Your task to perform on an android device: Open calendar and show me the third week of next month Image 0: 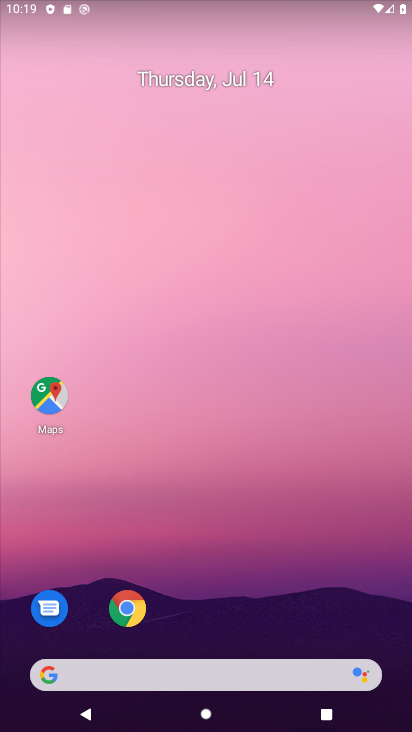
Step 0: drag from (230, 612) to (243, 10)
Your task to perform on an android device: Open calendar and show me the third week of next month Image 1: 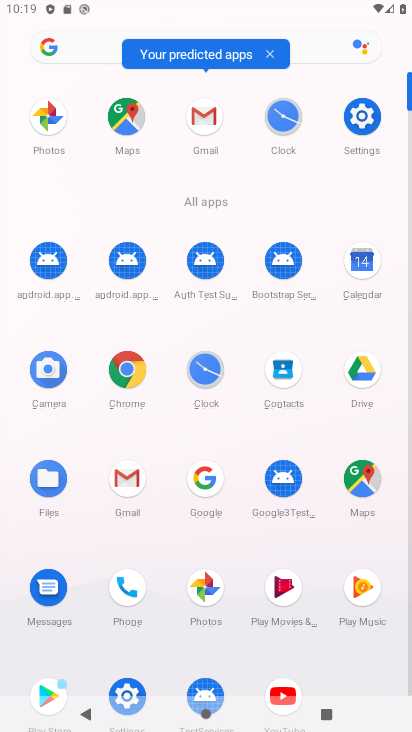
Step 1: click (366, 261)
Your task to perform on an android device: Open calendar and show me the third week of next month Image 2: 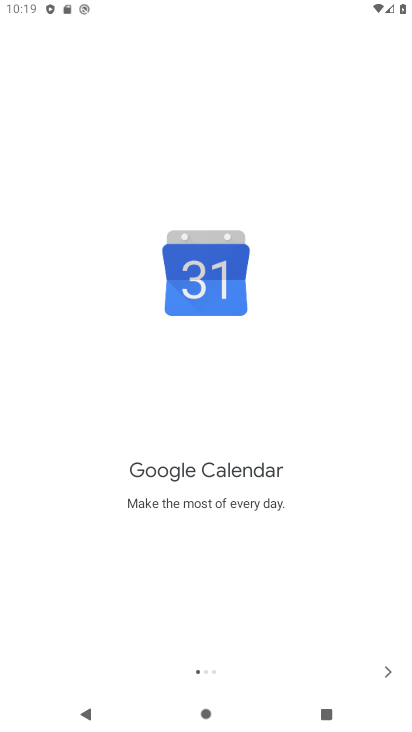
Step 2: click (393, 676)
Your task to perform on an android device: Open calendar and show me the third week of next month Image 3: 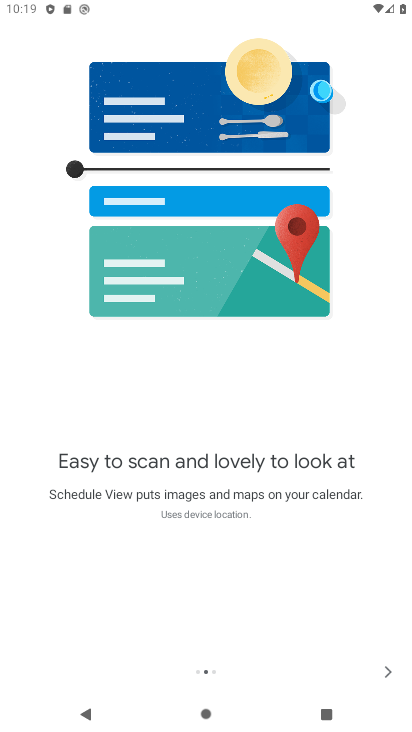
Step 3: click (393, 676)
Your task to perform on an android device: Open calendar and show me the third week of next month Image 4: 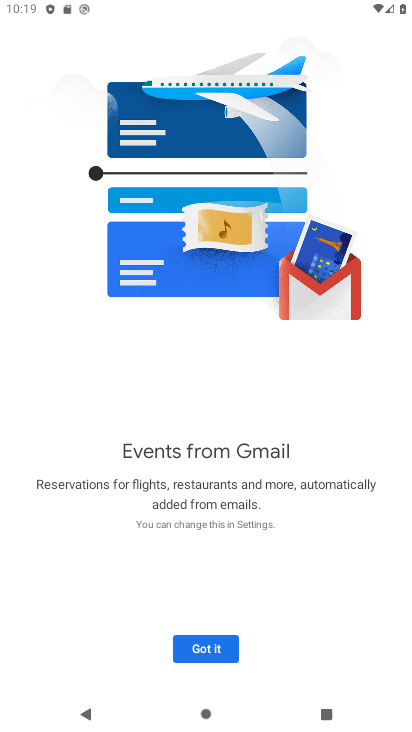
Step 4: click (196, 643)
Your task to perform on an android device: Open calendar and show me the third week of next month Image 5: 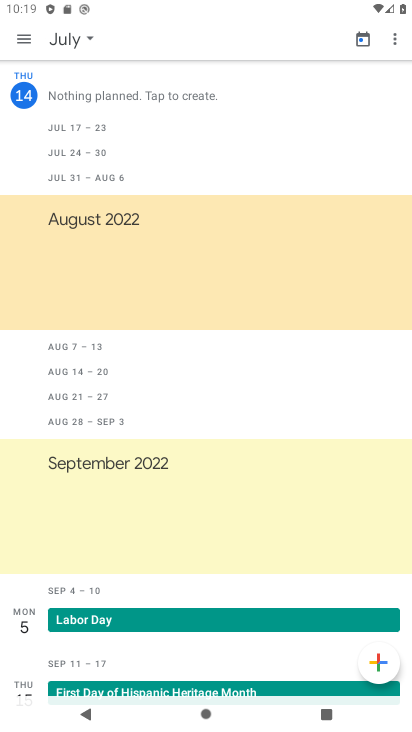
Step 5: click (30, 35)
Your task to perform on an android device: Open calendar and show me the third week of next month Image 6: 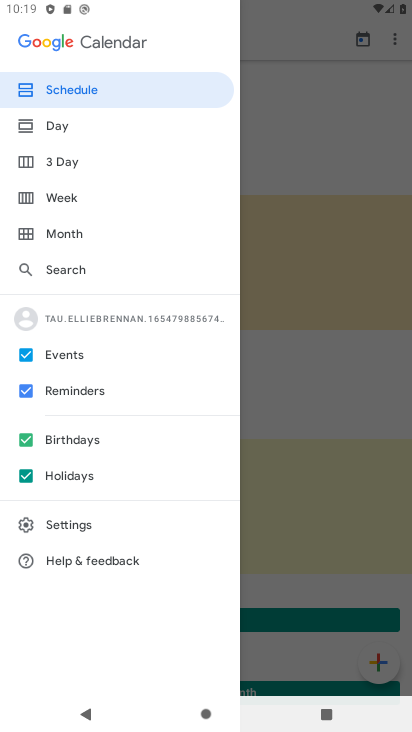
Step 6: click (72, 193)
Your task to perform on an android device: Open calendar and show me the third week of next month Image 7: 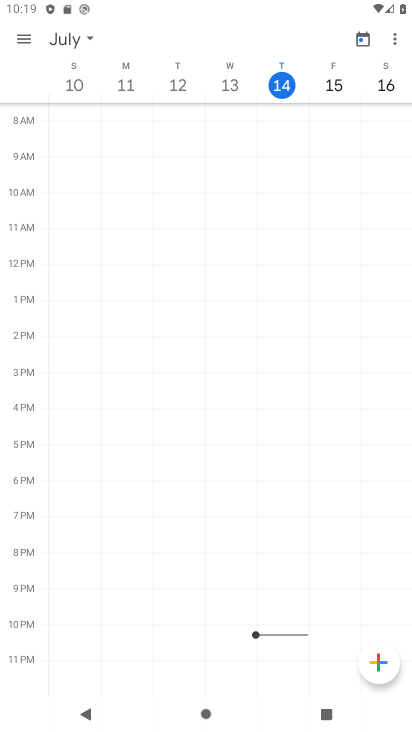
Step 7: click (89, 31)
Your task to perform on an android device: Open calendar and show me the third week of next month Image 8: 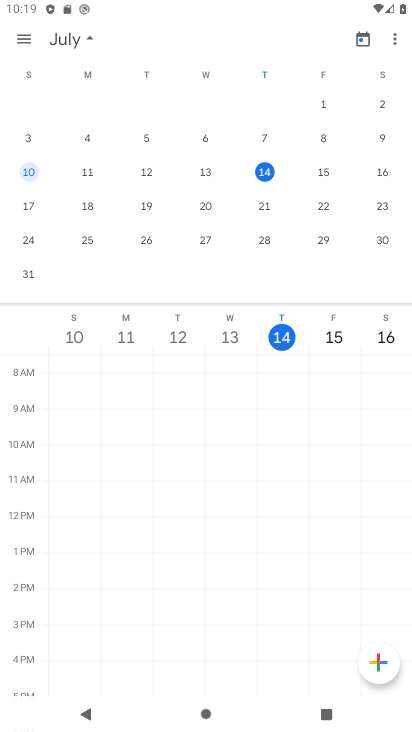
Step 8: drag from (348, 224) to (23, 172)
Your task to perform on an android device: Open calendar and show me the third week of next month Image 9: 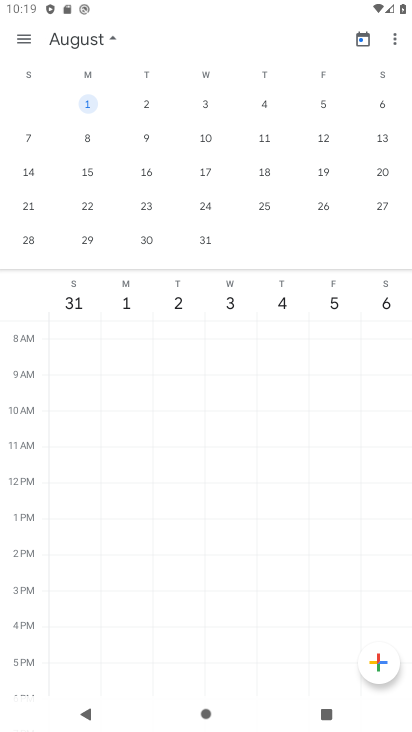
Step 9: click (145, 172)
Your task to perform on an android device: Open calendar and show me the third week of next month Image 10: 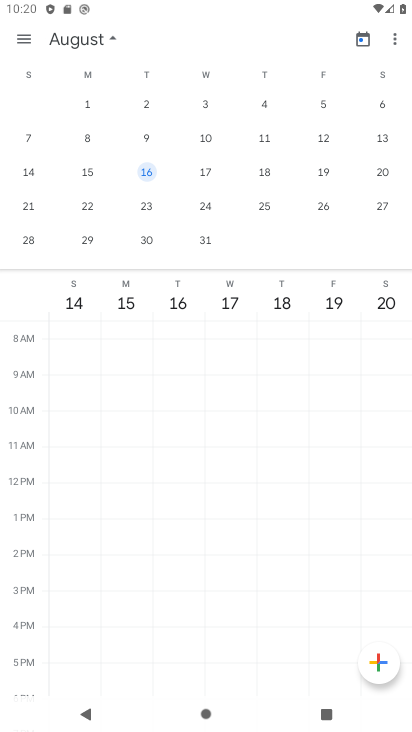
Step 10: drag from (290, 600) to (217, 123)
Your task to perform on an android device: Open calendar and show me the third week of next month Image 11: 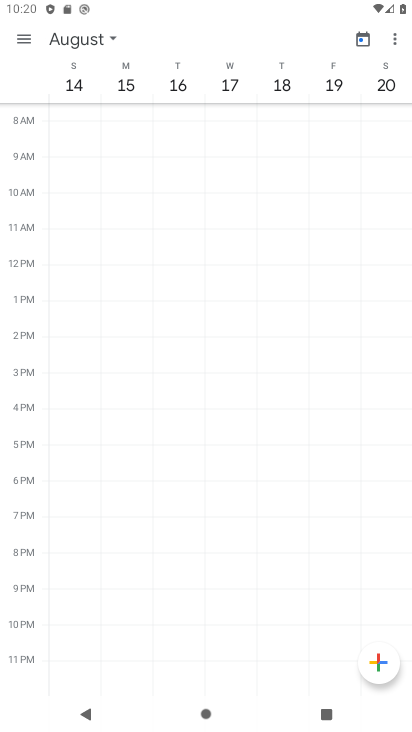
Step 11: drag from (259, 625) to (253, 690)
Your task to perform on an android device: Open calendar and show me the third week of next month Image 12: 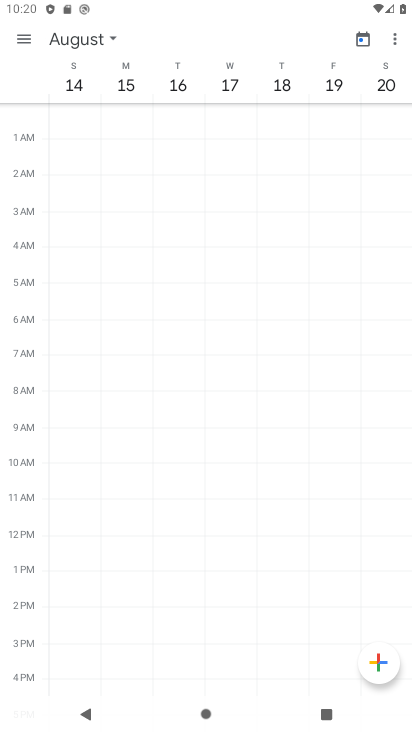
Step 12: drag from (276, 547) to (229, 439)
Your task to perform on an android device: Open calendar and show me the third week of next month Image 13: 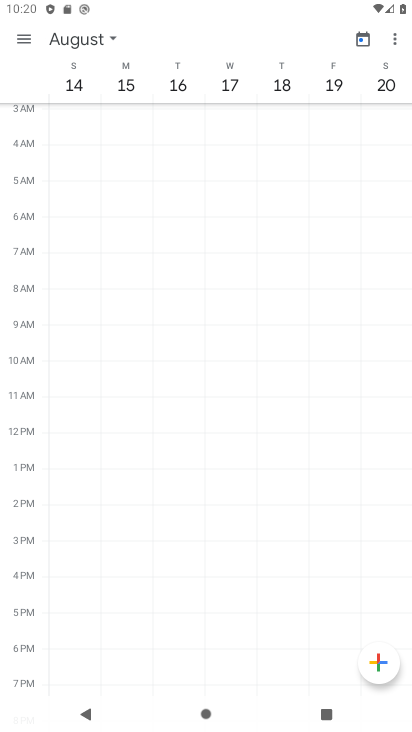
Step 13: click (229, 439)
Your task to perform on an android device: Open calendar and show me the third week of next month Image 14: 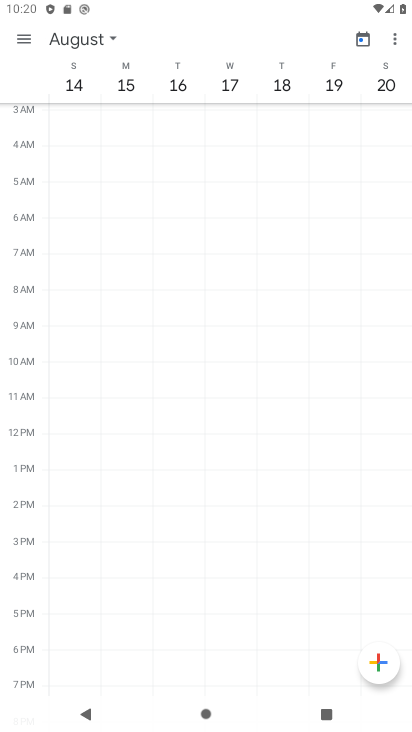
Step 14: task complete